Your task to perform on an android device: turn off picture-in-picture Image 0: 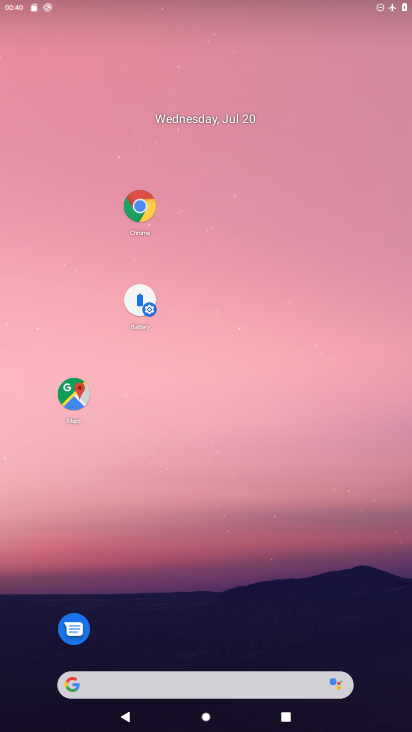
Step 0: drag from (210, 292) to (213, 39)
Your task to perform on an android device: turn off picture-in-picture Image 1: 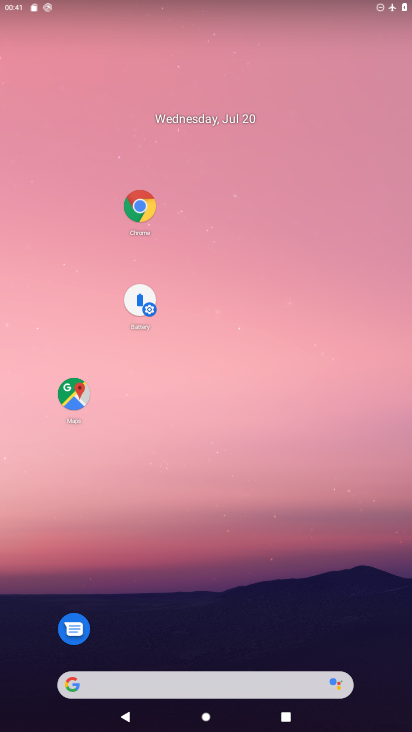
Step 1: drag from (196, 620) to (205, 25)
Your task to perform on an android device: turn off picture-in-picture Image 2: 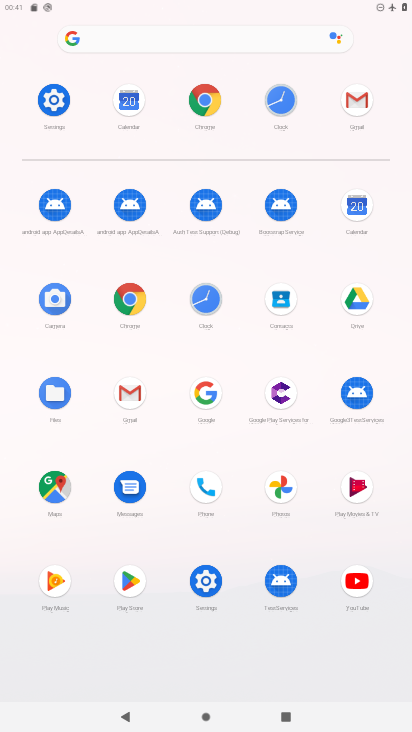
Step 2: click (209, 583)
Your task to perform on an android device: turn off picture-in-picture Image 3: 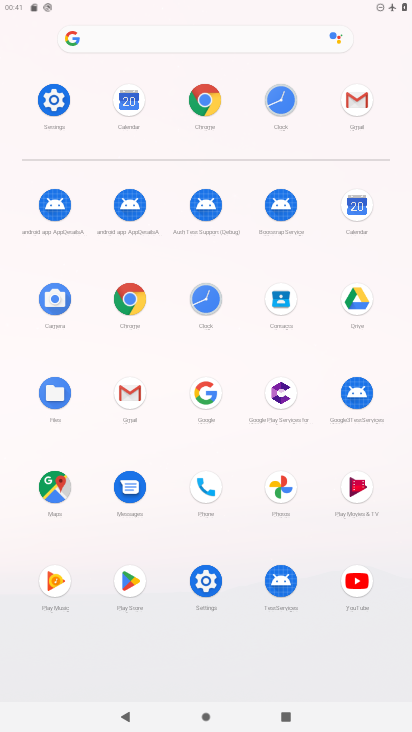
Step 3: click (200, 578)
Your task to perform on an android device: turn off picture-in-picture Image 4: 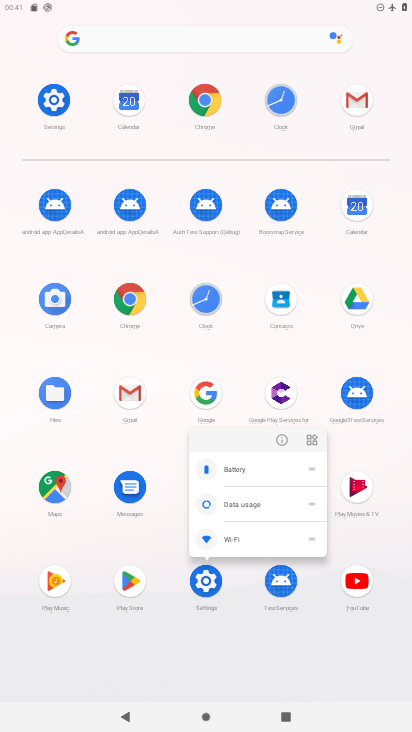
Step 4: click (267, 443)
Your task to perform on an android device: turn off picture-in-picture Image 5: 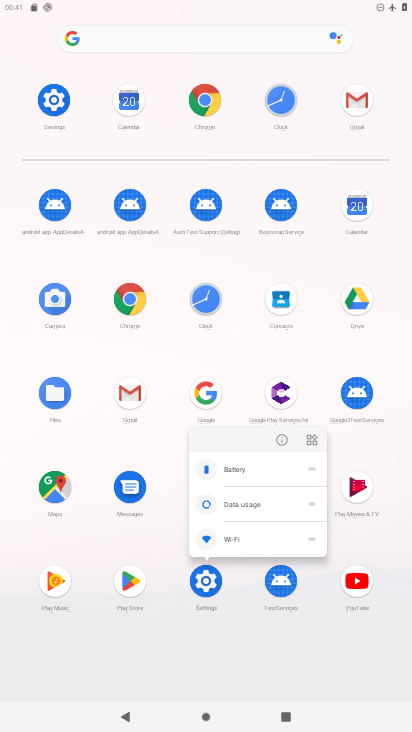
Step 5: click (282, 436)
Your task to perform on an android device: turn off picture-in-picture Image 6: 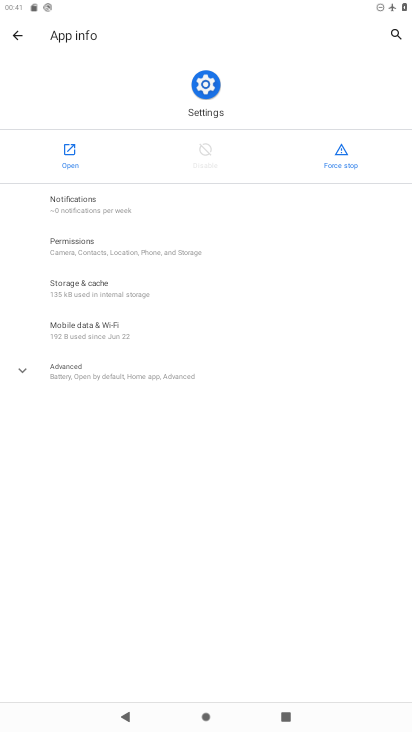
Step 6: click (61, 152)
Your task to perform on an android device: turn off picture-in-picture Image 7: 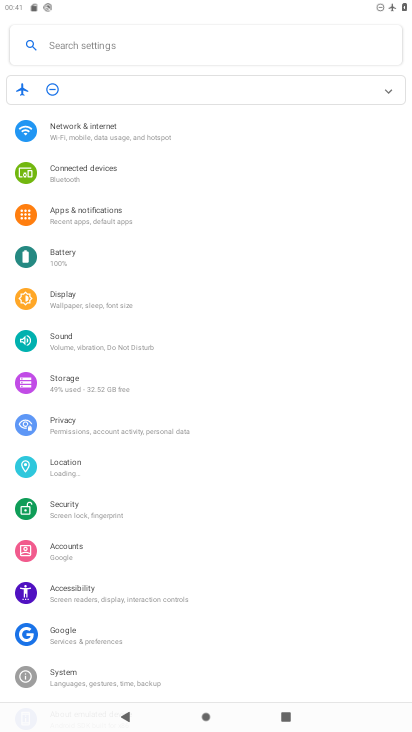
Step 7: click (283, 304)
Your task to perform on an android device: turn off picture-in-picture Image 8: 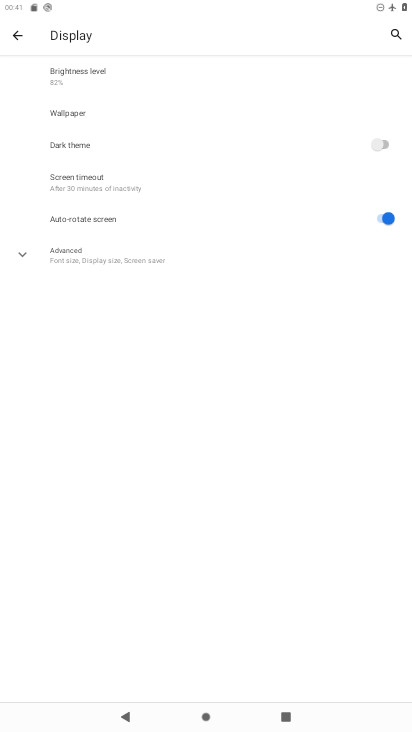
Step 8: click (12, 42)
Your task to perform on an android device: turn off picture-in-picture Image 9: 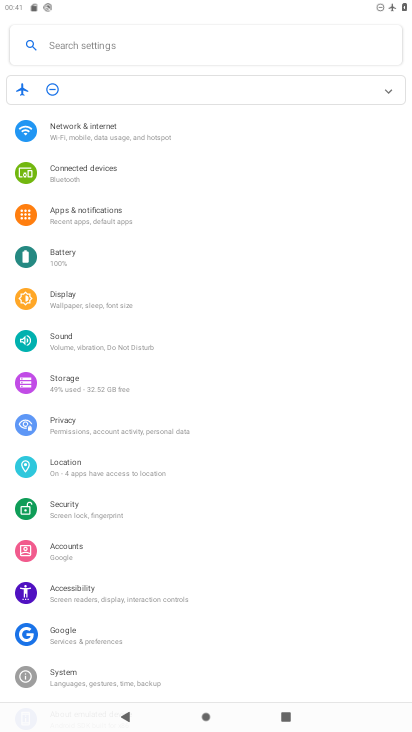
Step 9: drag from (163, 284) to (264, 700)
Your task to perform on an android device: turn off picture-in-picture Image 10: 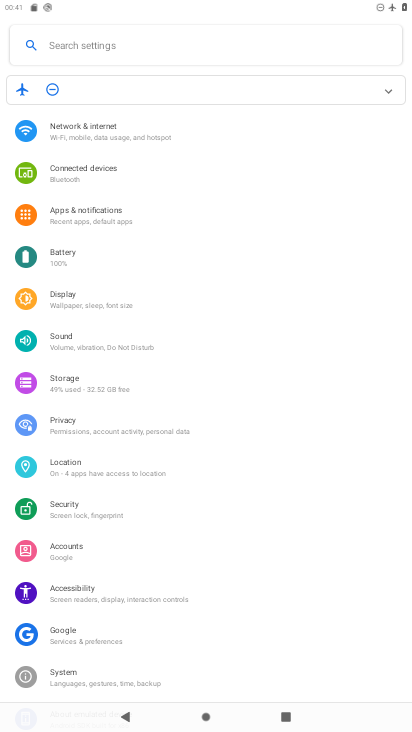
Step 10: click (126, 215)
Your task to perform on an android device: turn off picture-in-picture Image 11: 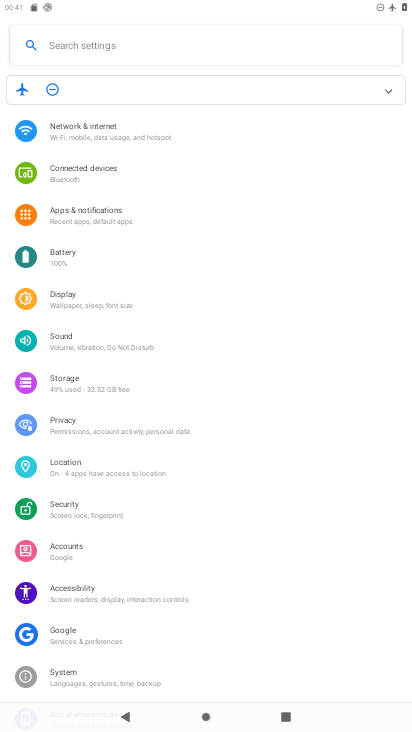
Step 11: click (128, 217)
Your task to perform on an android device: turn off picture-in-picture Image 12: 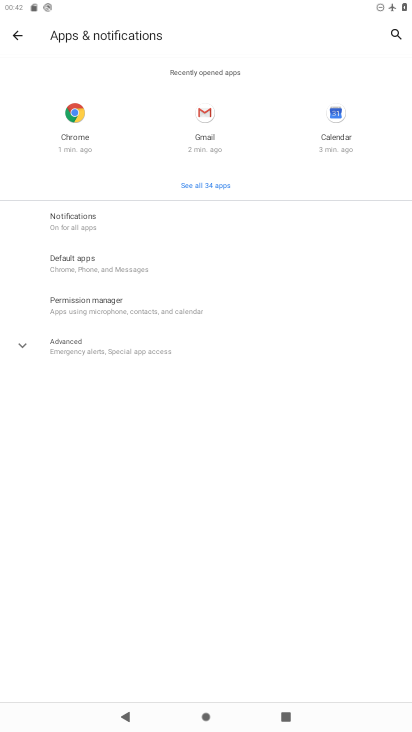
Step 12: click (99, 330)
Your task to perform on an android device: turn off picture-in-picture Image 13: 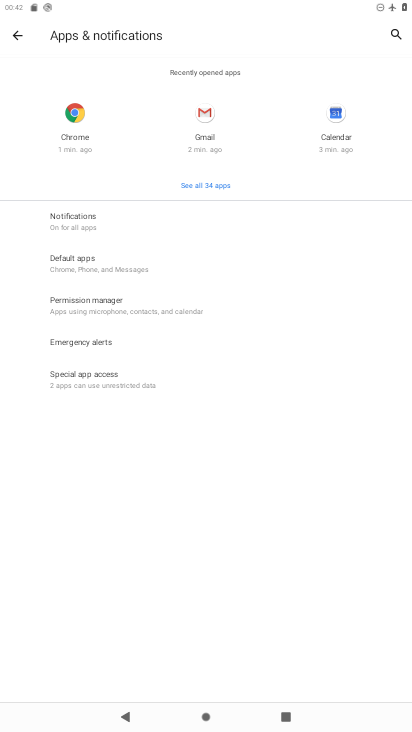
Step 13: click (126, 379)
Your task to perform on an android device: turn off picture-in-picture Image 14: 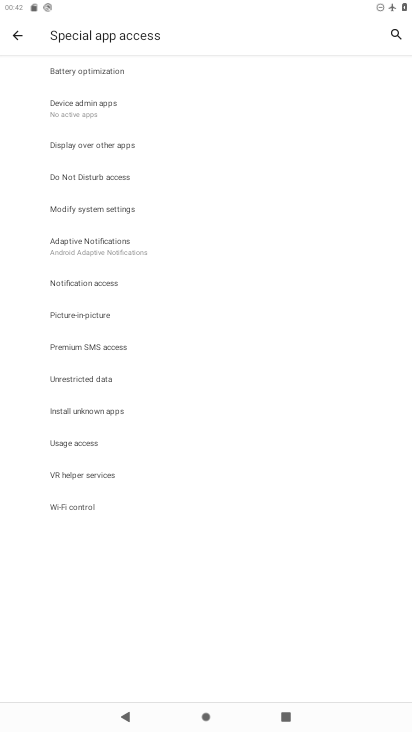
Step 14: click (122, 317)
Your task to perform on an android device: turn off picture-in-picture Image 15: 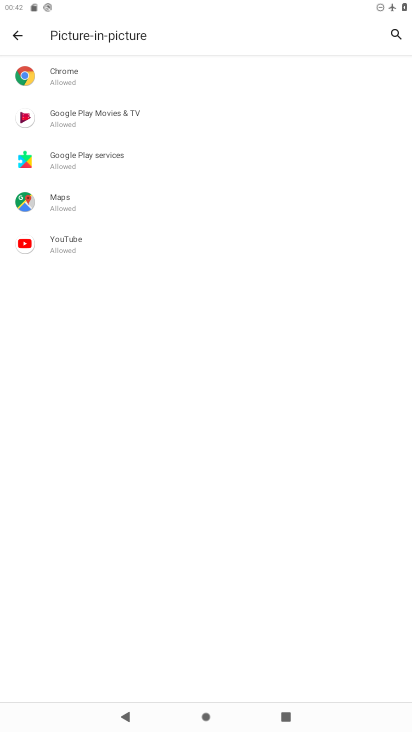
Step 15: click (113, 88)
Your task to perform on an android device: turn off picture-in-picture Image 16: 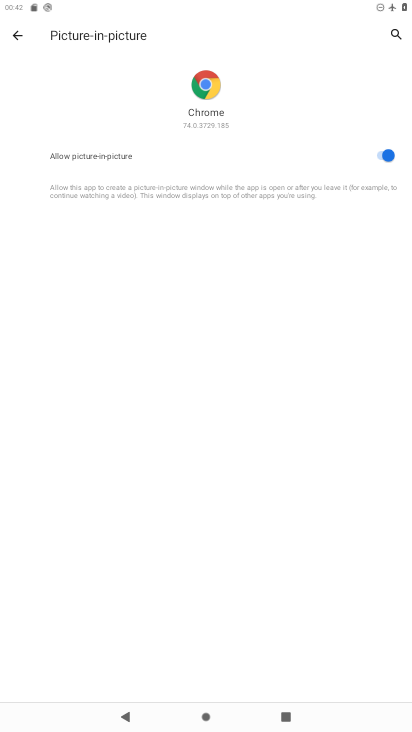
Step 16: click (386, 148)
Your task to perform on an android device: turn off picture-in-picture Image 17: 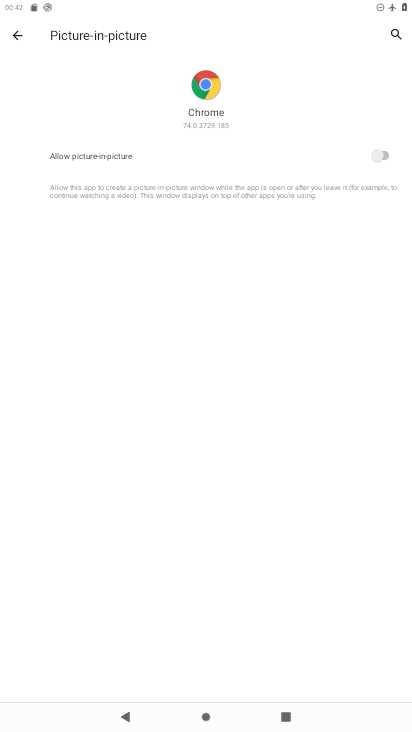
Step 17: task complete